Your task to perform on an android device: What is the news today? Image 0: 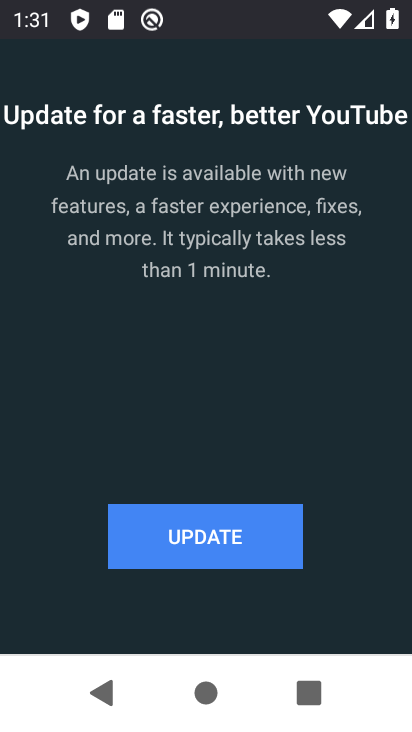
Step 0: press back button
Your task to perform on an android device: What is the news today? Image 1: 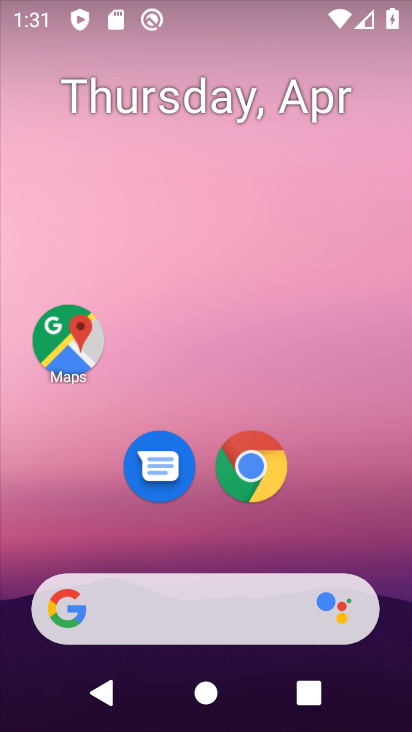
Step 1: drag from (332, 509) to (299, 6)
Your task to perform on an android device: What is the news today? Image 2: 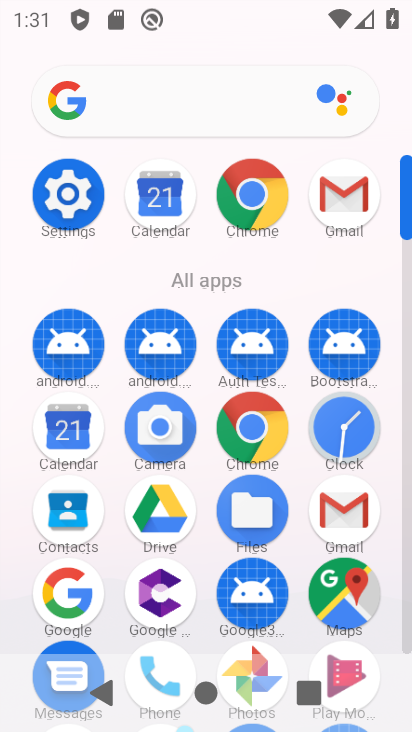
Step 2: drag from (5, 309) to (15, 179)
Your task to perform on an android device: What is the news today? Image 3: 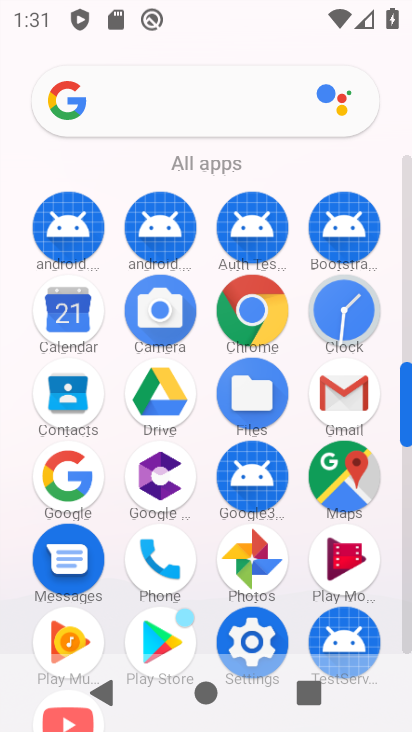
Step 3: drag from (3, 259) to (0, 436)
Your task to perform on an android device: What is the news today? Image 4: 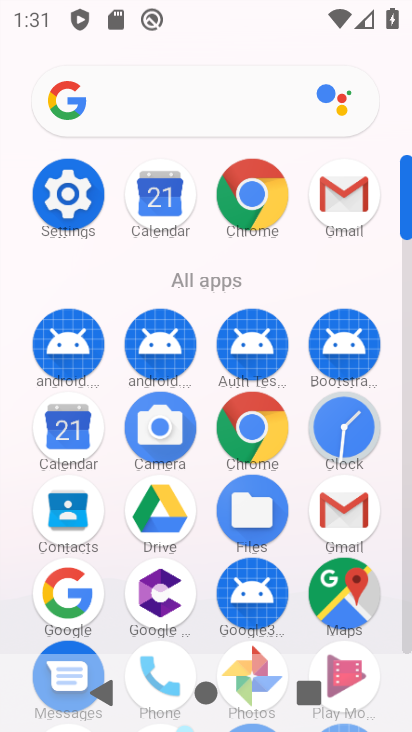
Step 4: click (187, 94)
Your task to perform on an android device: What is the news today? Image 5: 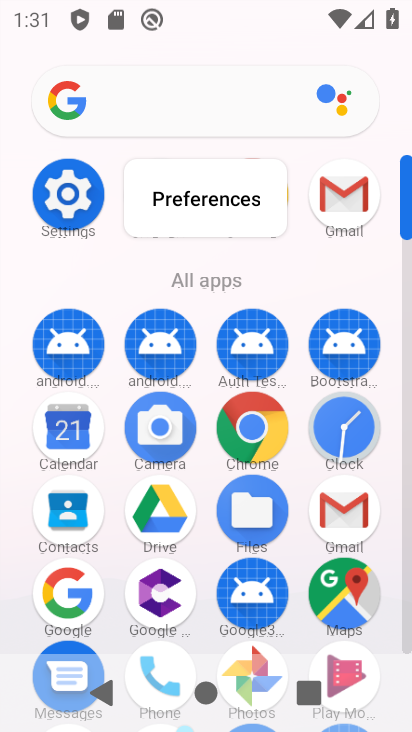
Step 5: click (130, 92)
Your task to perform on an android device: What is the news today? Image 6: 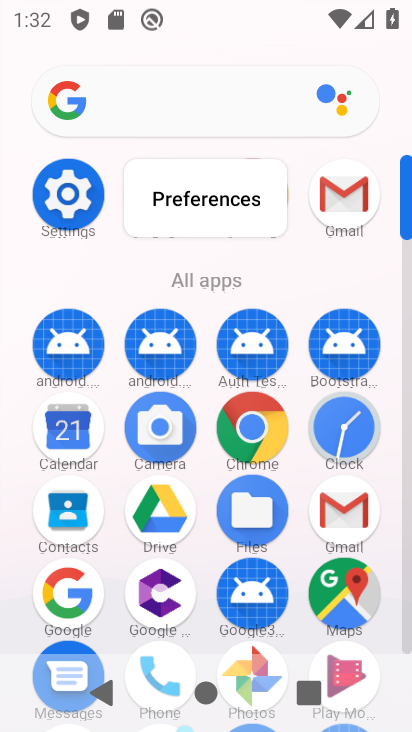
Step 6: click (130, 92)
Your task to perform on an android device: What is the news today? Image 7: 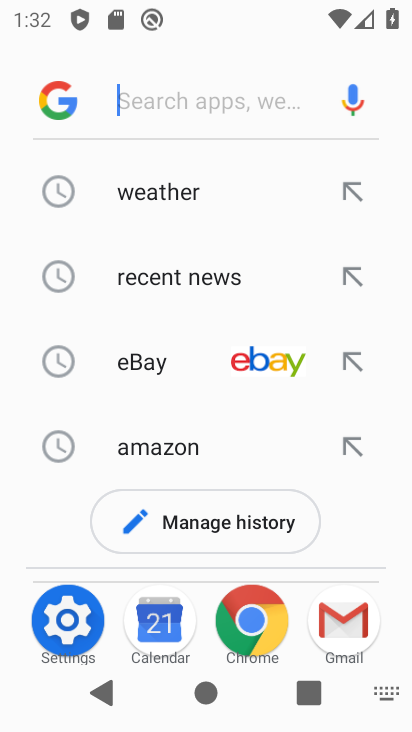
Step 7: click (130, 92)
Your task to perform on an android device: What is the news today? Image 8: 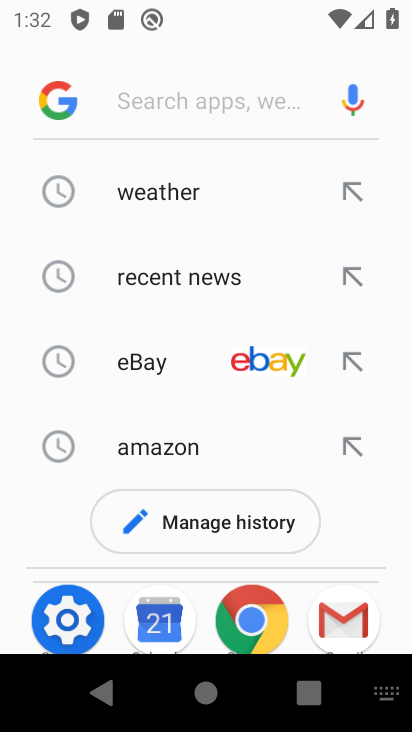
Step 8: click (181, 281)
Your task to perform on an android device: What is the news today? Image 9: 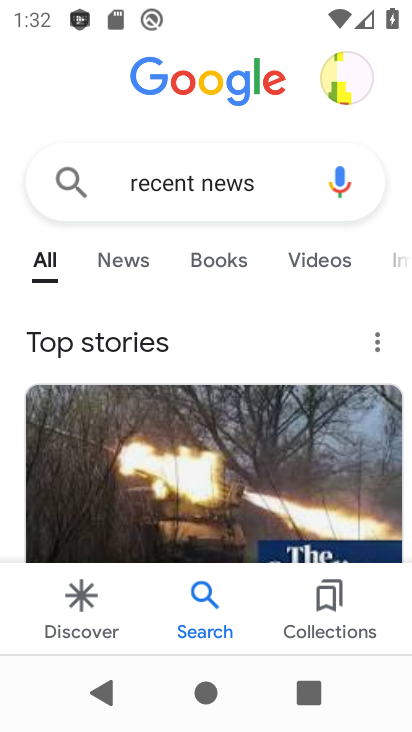
Step 9: task complete